Your task to perform on an android device: all mails in gmail Image 0: 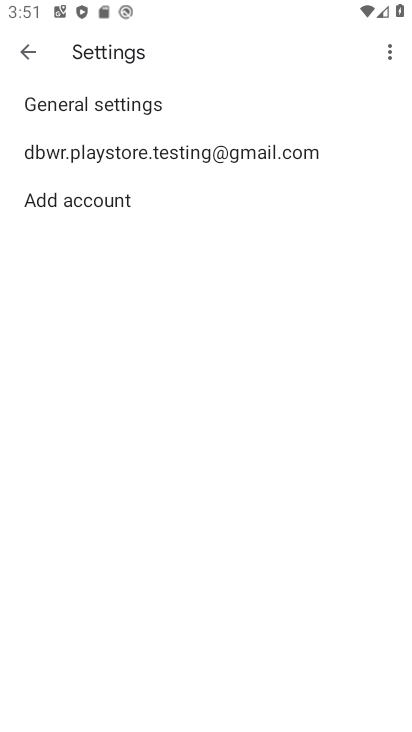
Step 0: press home button
Your task to perform on an android device: all mails in gmail Image 1: 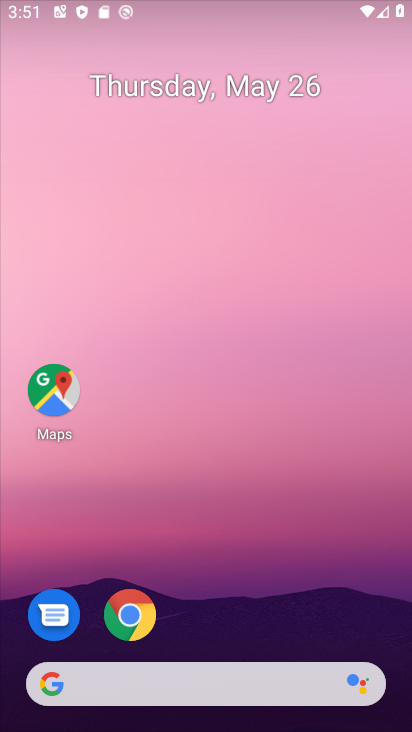
Step 1: drag from (318, 649) to (311, 3)
Your task to perform on an android device: all mails in gmail Image 2: 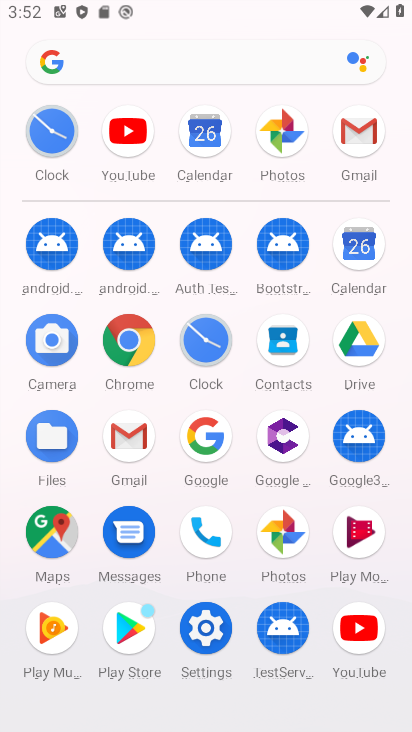
Step 2: click (347, 131)
Your task to perform on an android device: all mails in gmail Image 3: 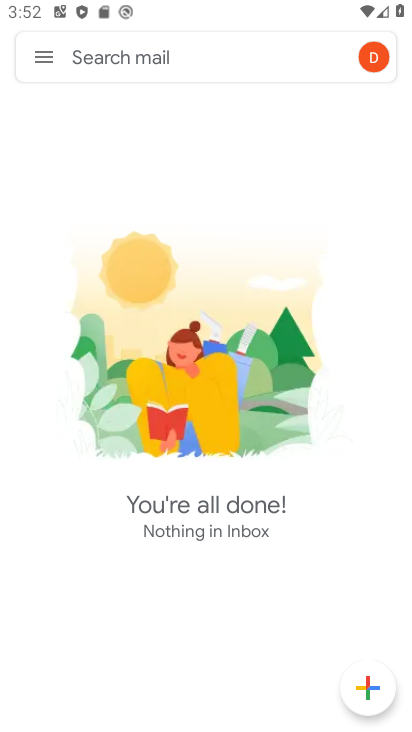
Step 3: click (44, 53)
Your task to perform on an android device: all mails in gmail Image 4: 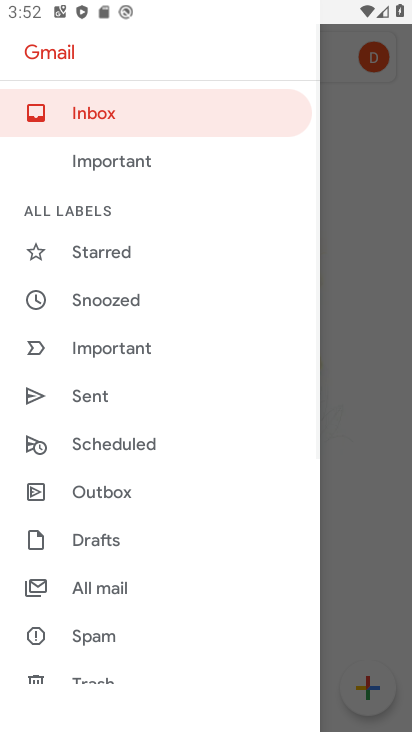
Step 4: click (133, 586)
Your task to perform on an android device: all mails in gmail Image 5: 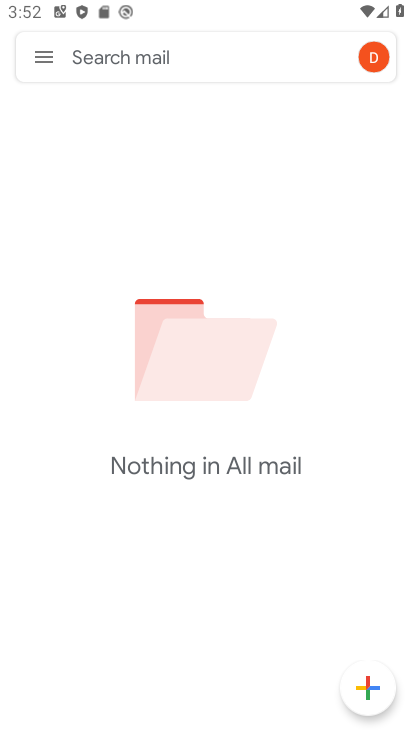
Step 5: task complete